Your task to perform on an android device: Search for a new lawnmower on home depot Image 0: 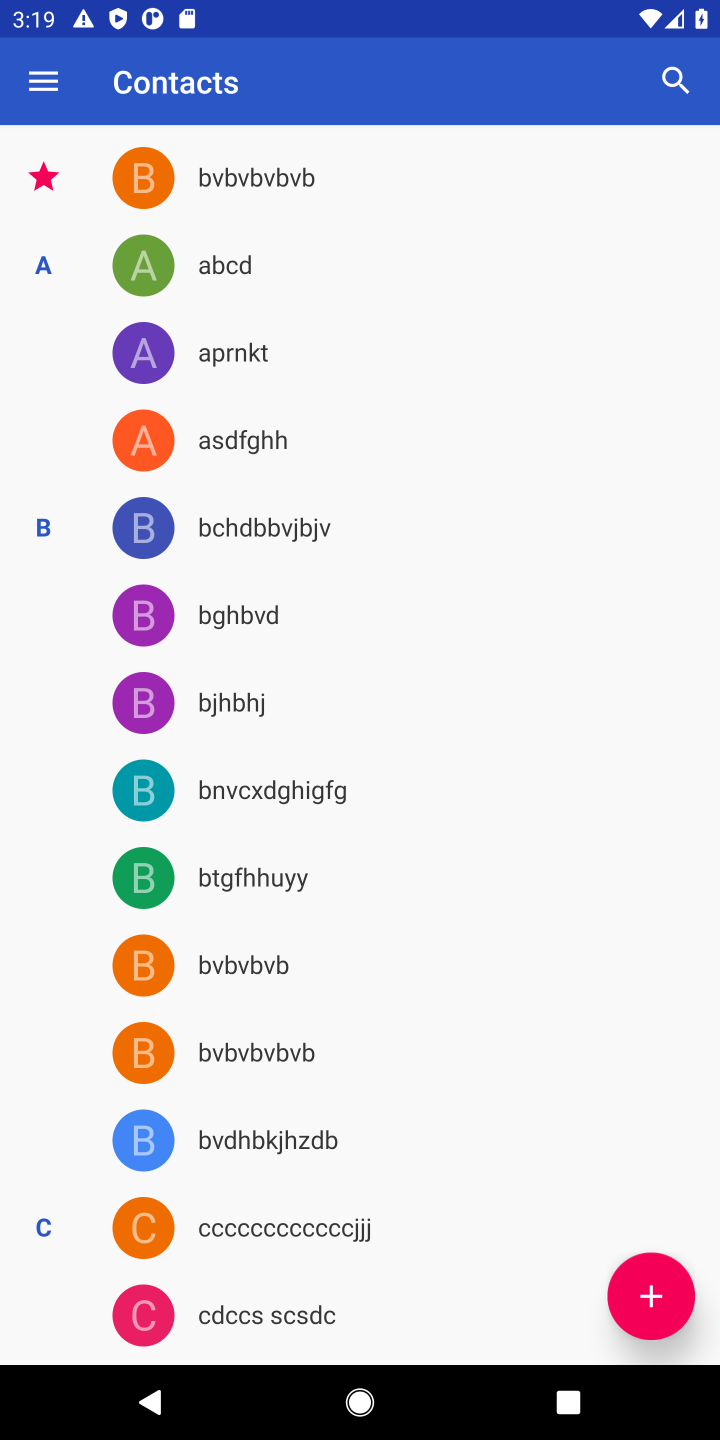
Step 0: press home button
Your task to perform on an android device: Search for a new lawnmower on home depot Image 1: 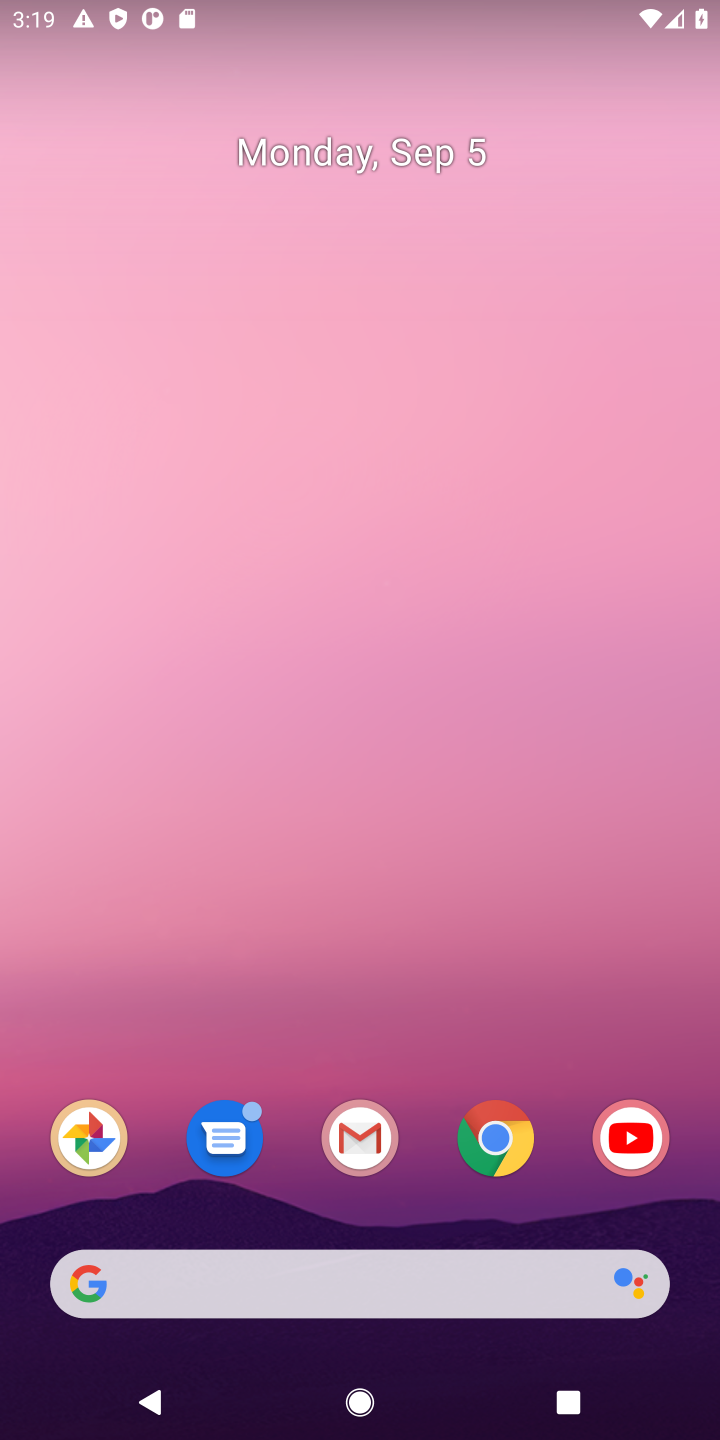
Step 1: click (498, 1140)
Your task to perform on an android device: Search for a new lawnmower on home depot Image 2: 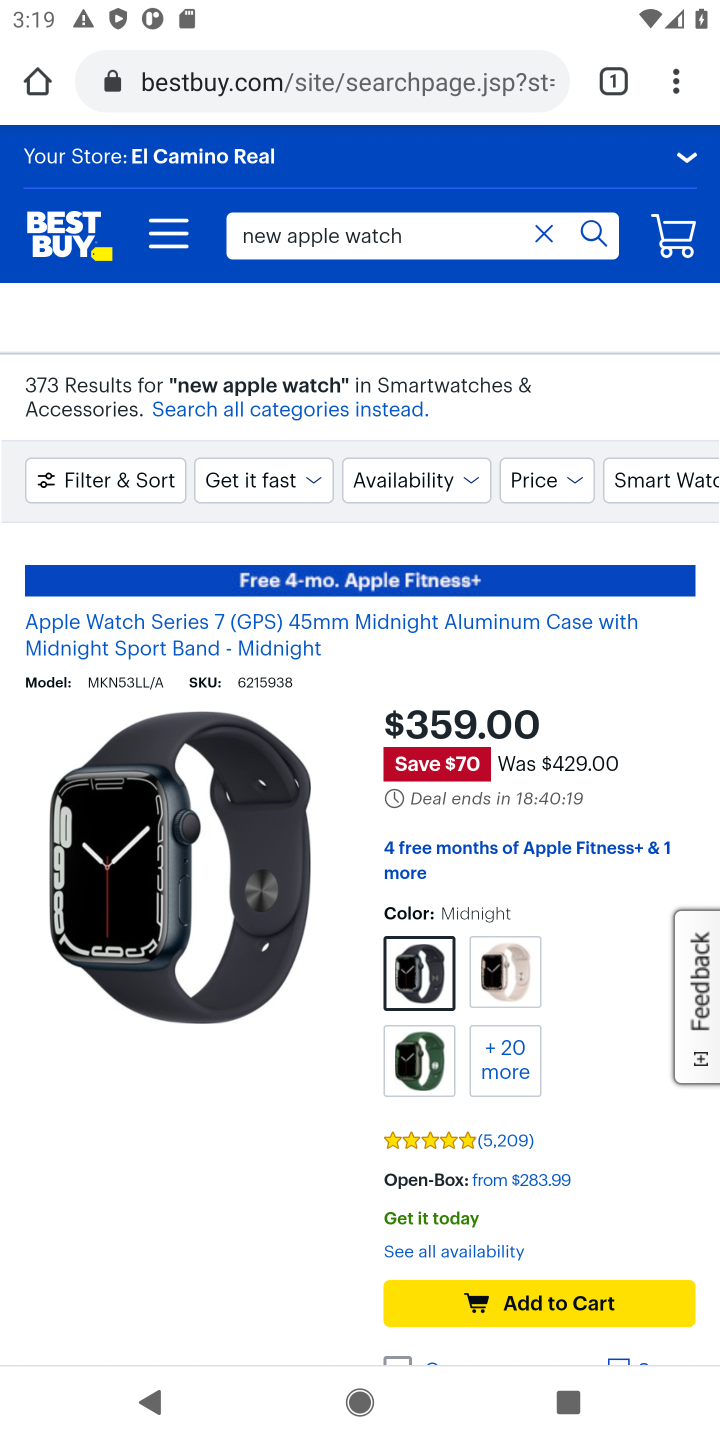
Step 2: click (347, 66)
Your task to perform on an android device: Search for a new lawnmower on home depot Image 3: 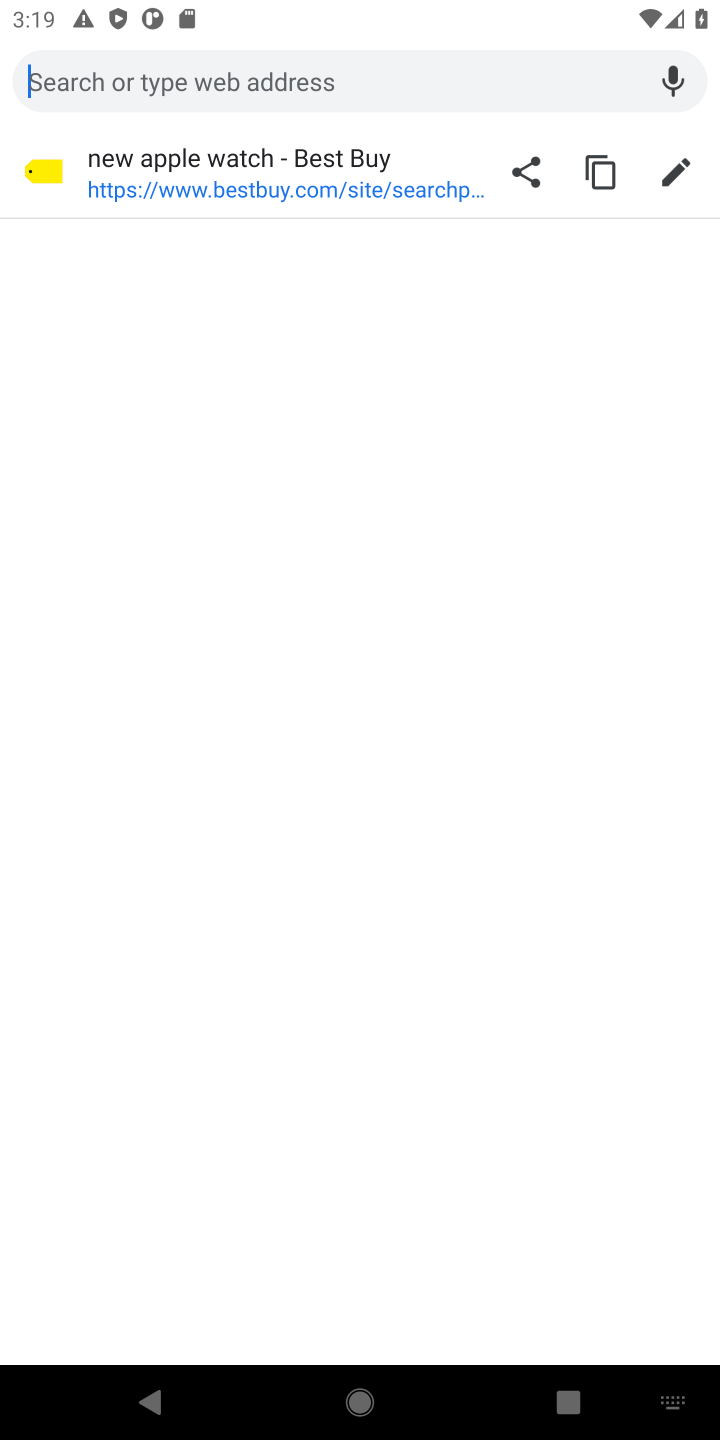
Step 3: type "Home depot"
Your task to perform on an android device: Search for a new lawnmower on home depot Image 4: 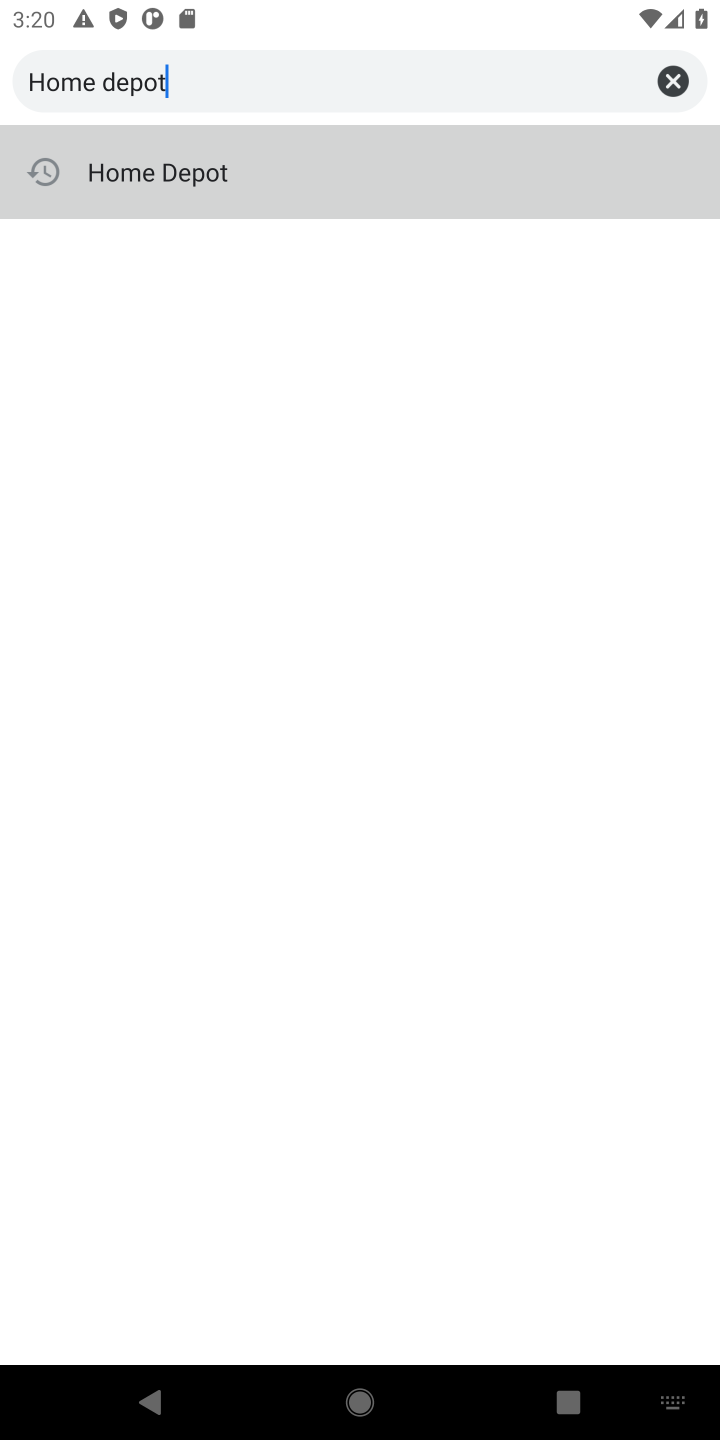
Step 4: click (323, 180)
Your task to perform on an android device: Search for a new lawnmower on home depot Image 5: 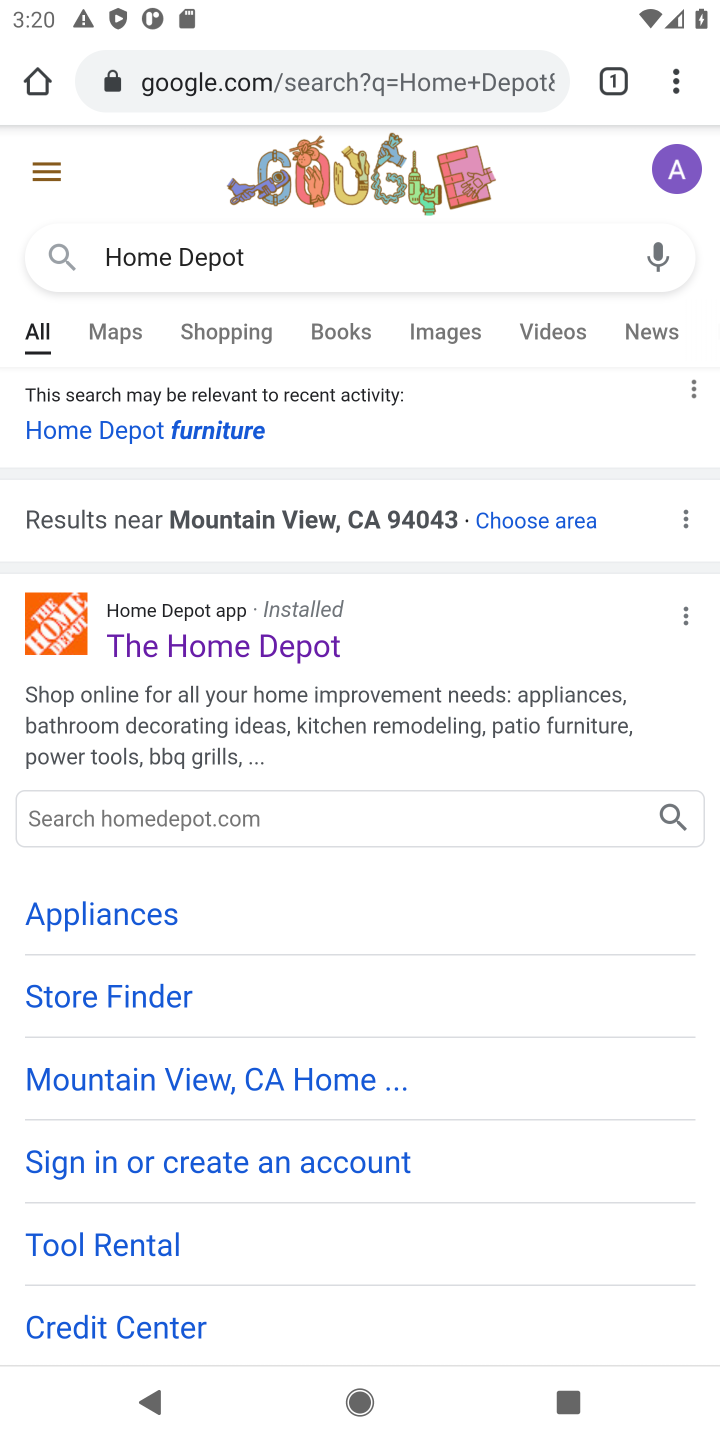
Step 5: click (302, 666)
Your task to perform on an android device: Search for a new lawnmower on home depot Image 6: 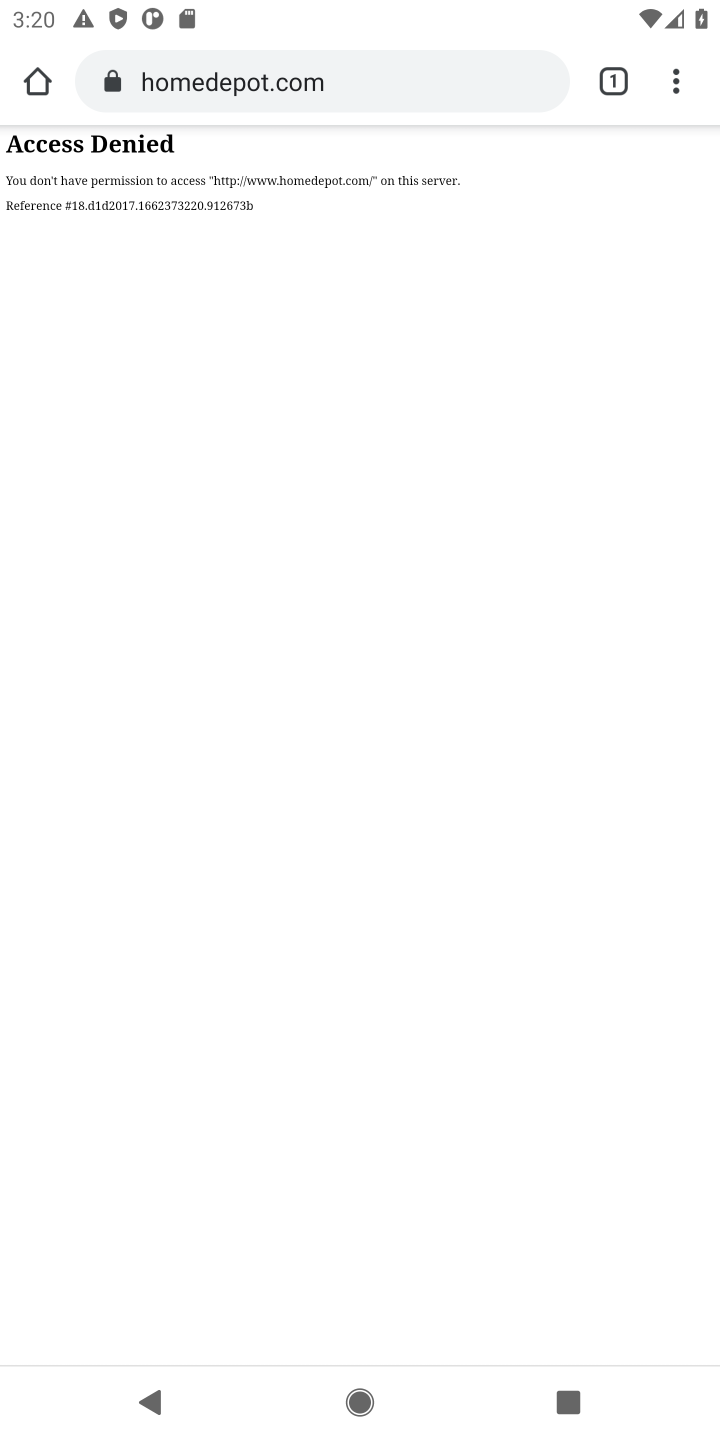
Step 6: task complete